Your task to perform on an android device: Do I have any events tomorrow? Image 0: 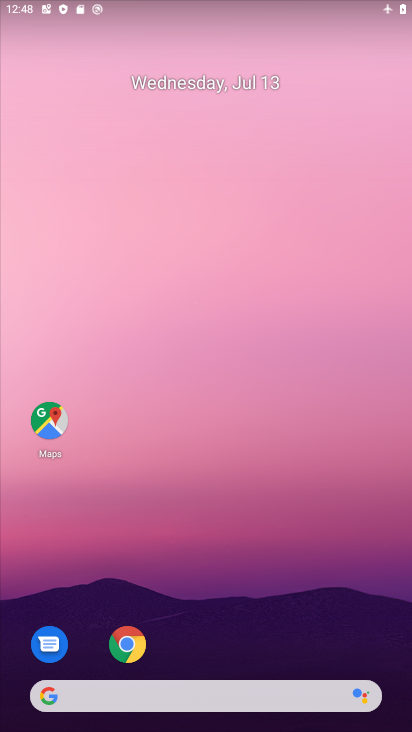
Step 0: drag from (277, 625) to (175, 97)
Your task to perform on an android device: Do I have any events tomorrow? Image 1: 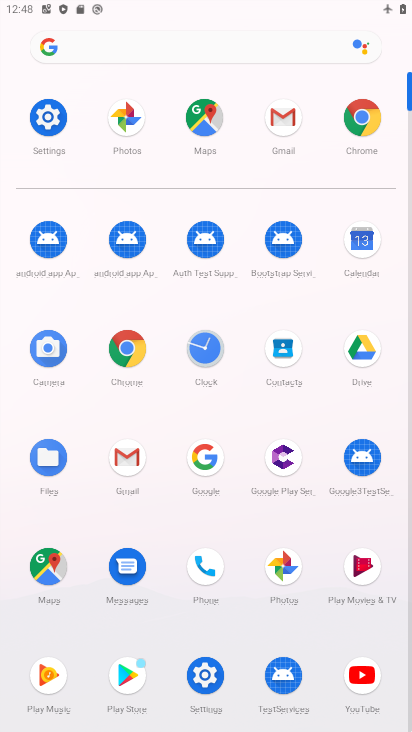
Step 1: click (361, 237)
Your task to perform on an android device: Do I have any events tomorrow? Image 2: 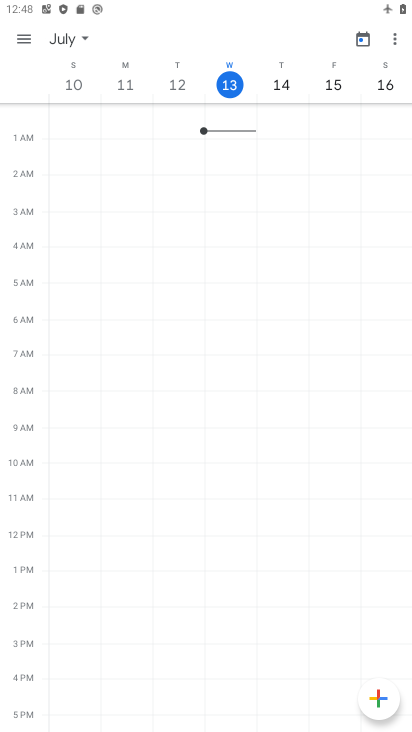
Step 2: click (287, 84)
Your task to perform on an android device: Do I have any events tomorrow? Image 3: 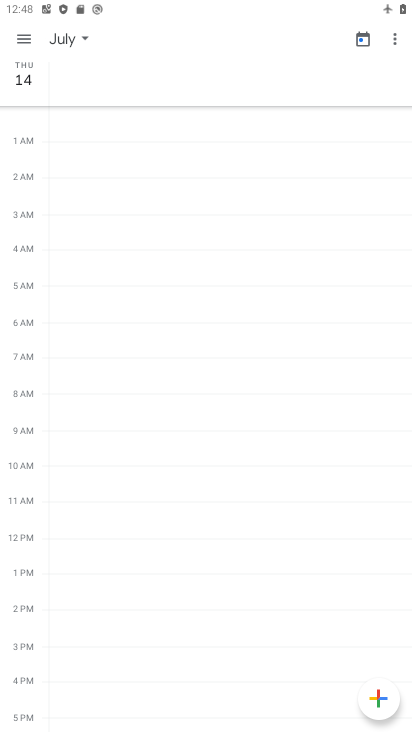
Step 3: task complete